Your task to perform on an android device: turn off translation in the chrome app Image 0: 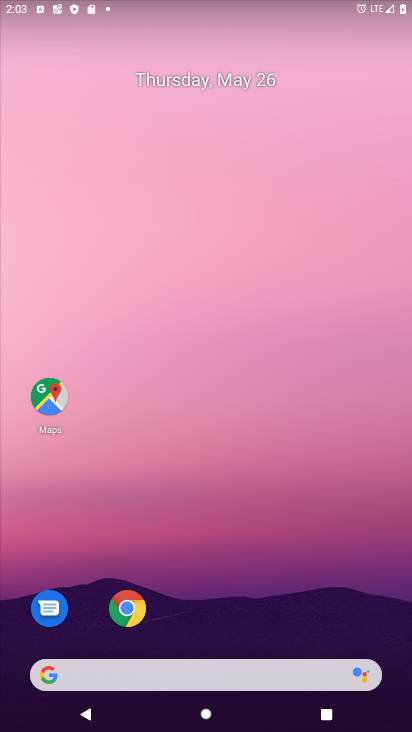
Step 0: click (131, 611)
Your task to perform on an android device: turn off translation in the chrome app Image 1: 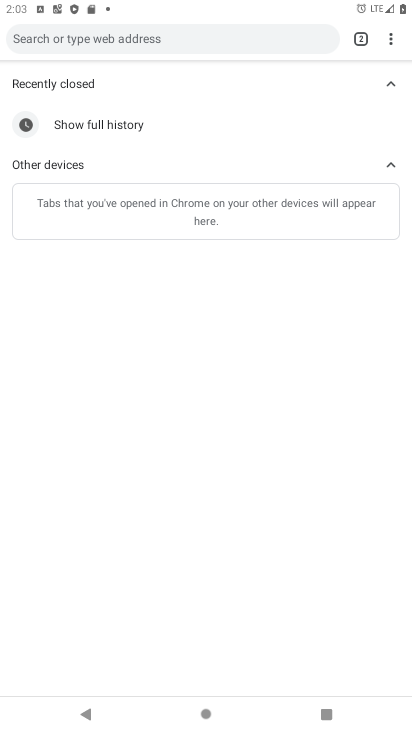
Step 1: press home button
Your task to perform on an android device: turn off translation in the chrome app Image 2: 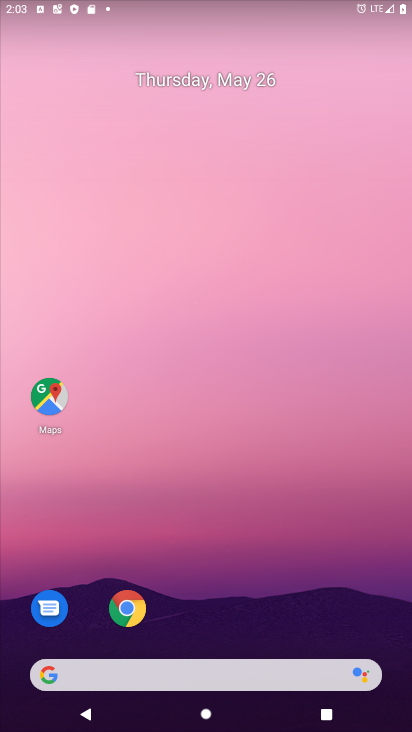
Step 2: click (130, 611)
Your task to perform on an android device: turn off translation in the chrome app Image 3: 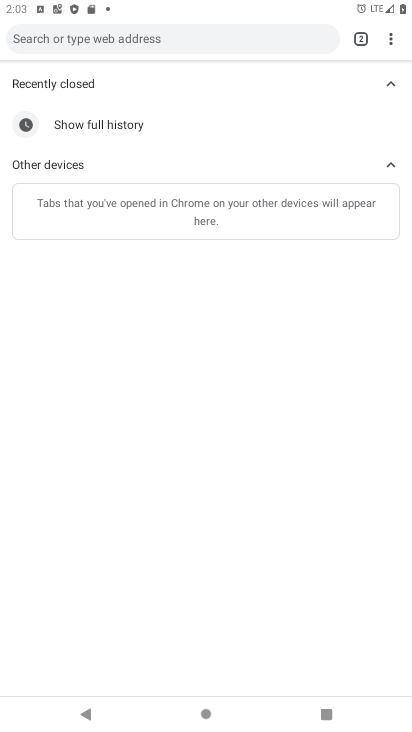
Step 3: click (387, 44)
Your task to perform on an android device: turn off translation in the chrome app Image 4: 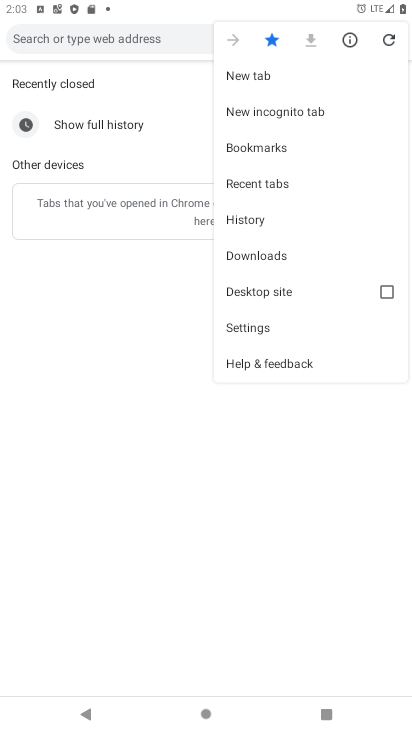
Step 4: click (253, 320)
Your task to perform on an android device: turn off translation in the chrome app Image 5: 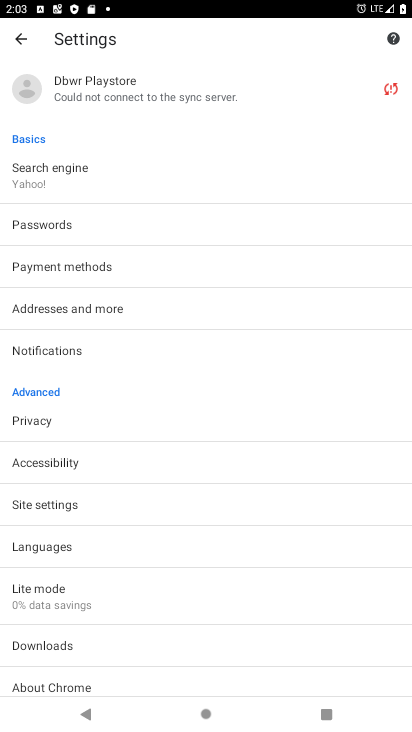
Step 5: click (44, 546)
Your task to perform on an android device: turn off translation in the chrome app Image 6: 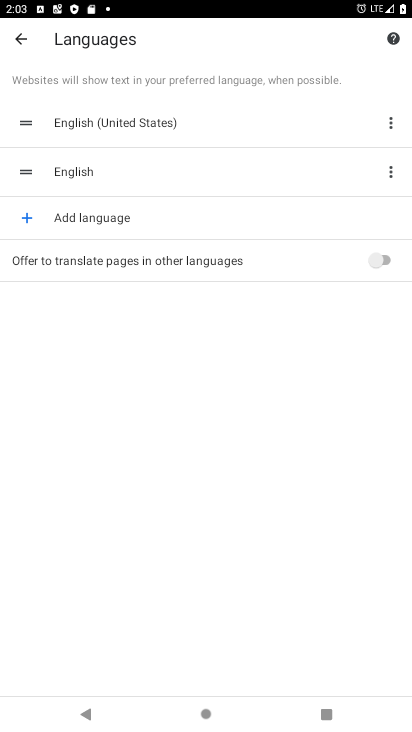
Step 6: task complete